Your task to perform on an android device: Check the weather Image 0: 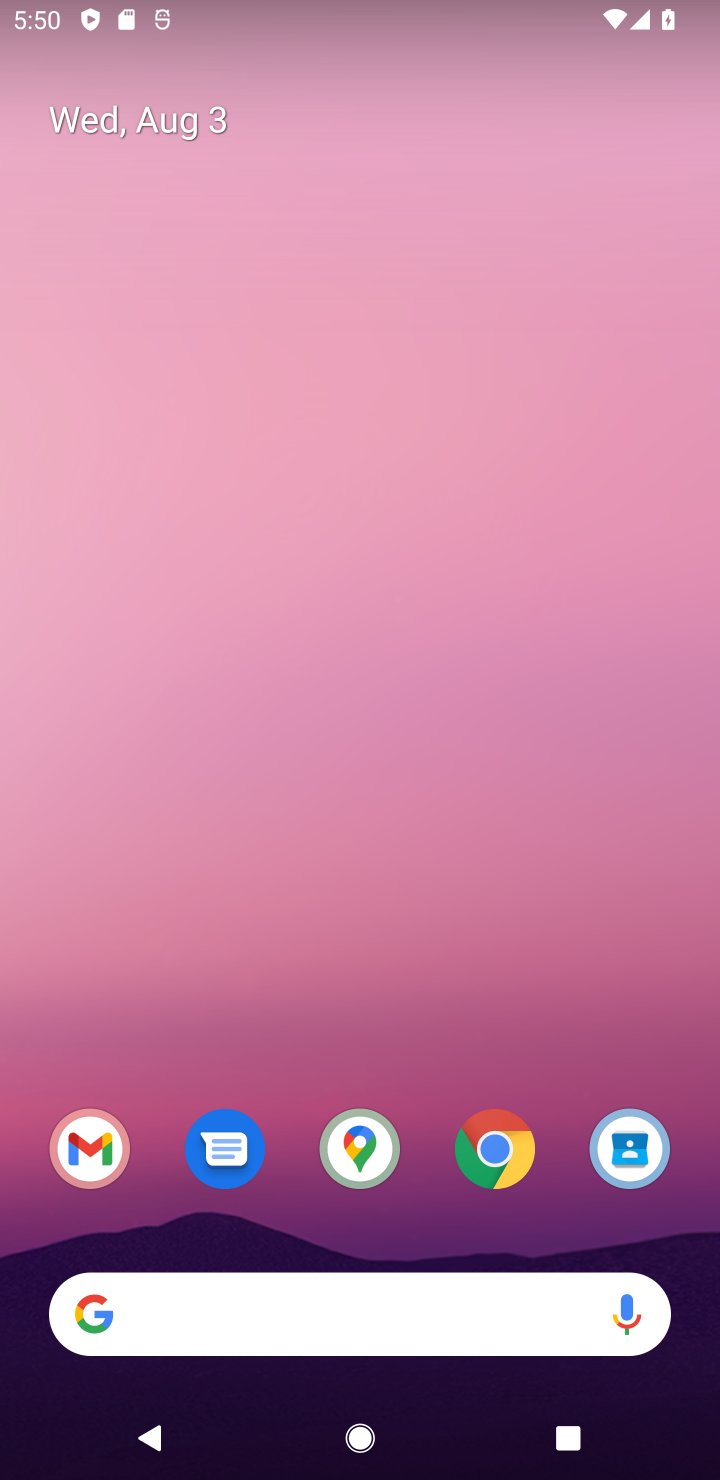
Step 0: drag from (353, 1311) to (318, 417)
Your task to perform on an android device: Check the weather Image 1: 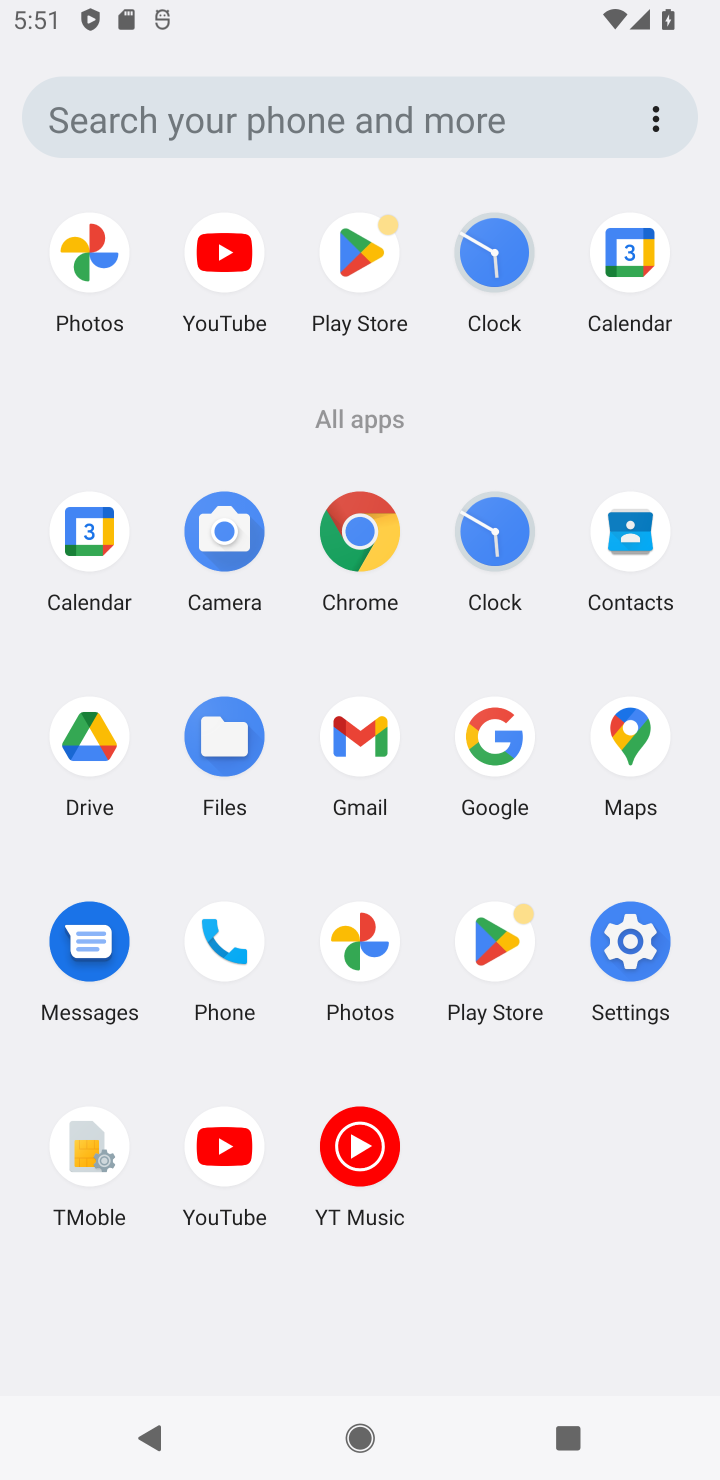
Step 1: click (358, 591)
Your task to perform on an android device: Check the weather Image 2: 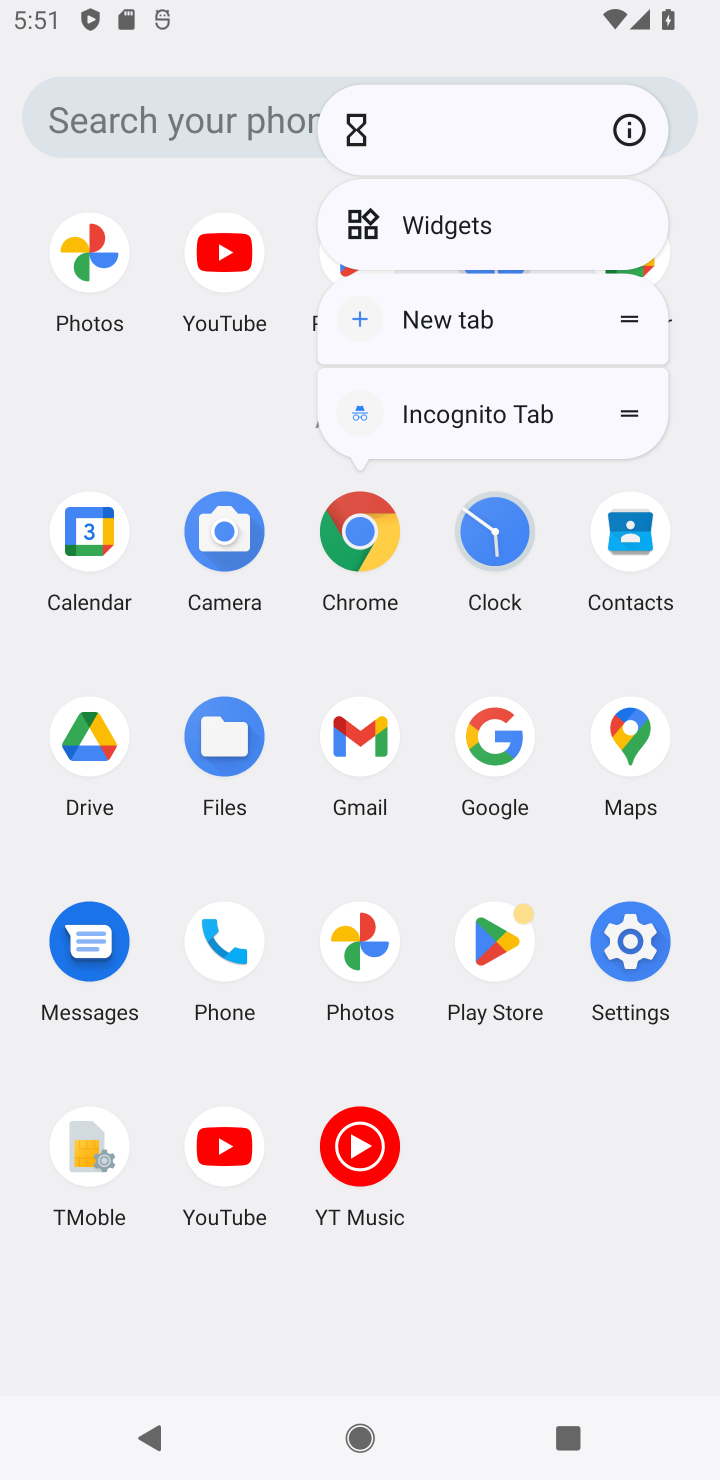
Step 2: click (370, 557)
Your task to perform on an android device: Check the weather Image 3: 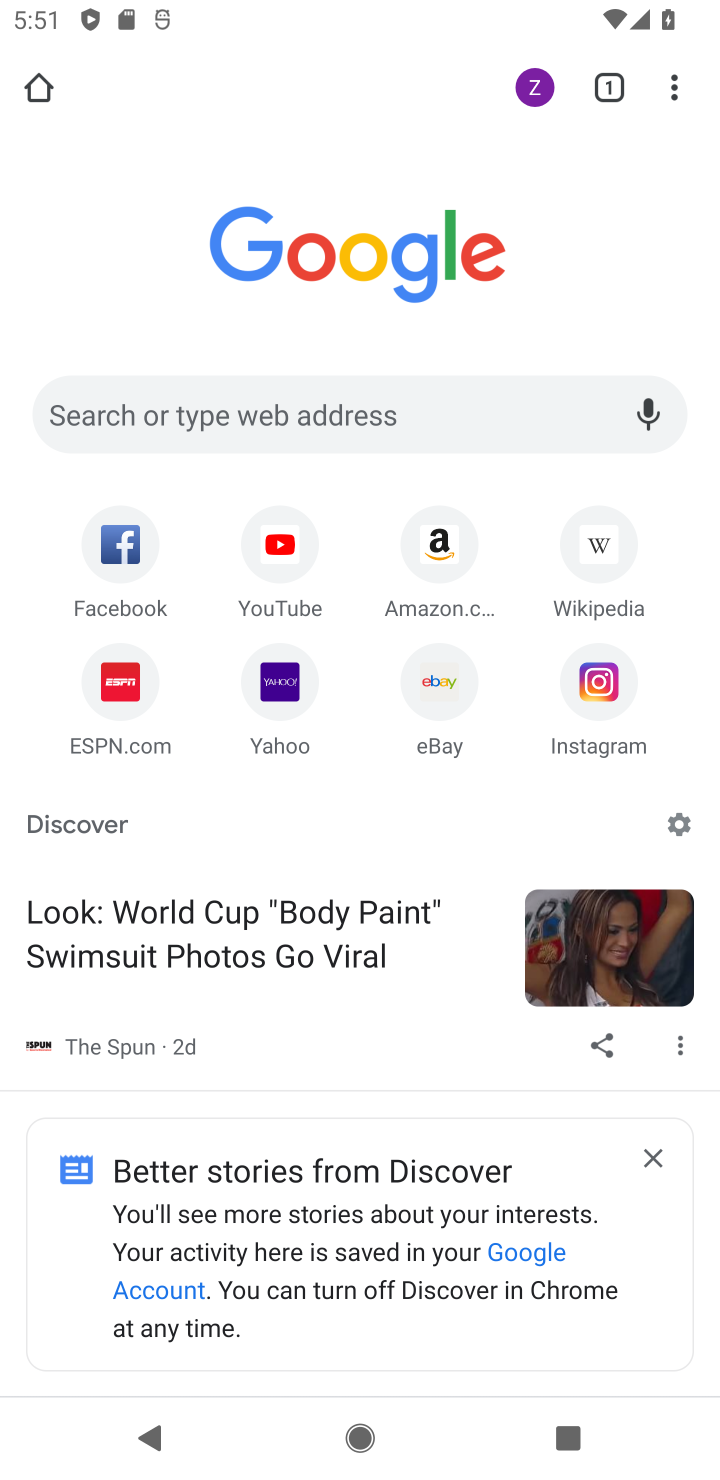
Step 3: click (337, 400)
Your task to perform on an android device: Check the weather Image 4: 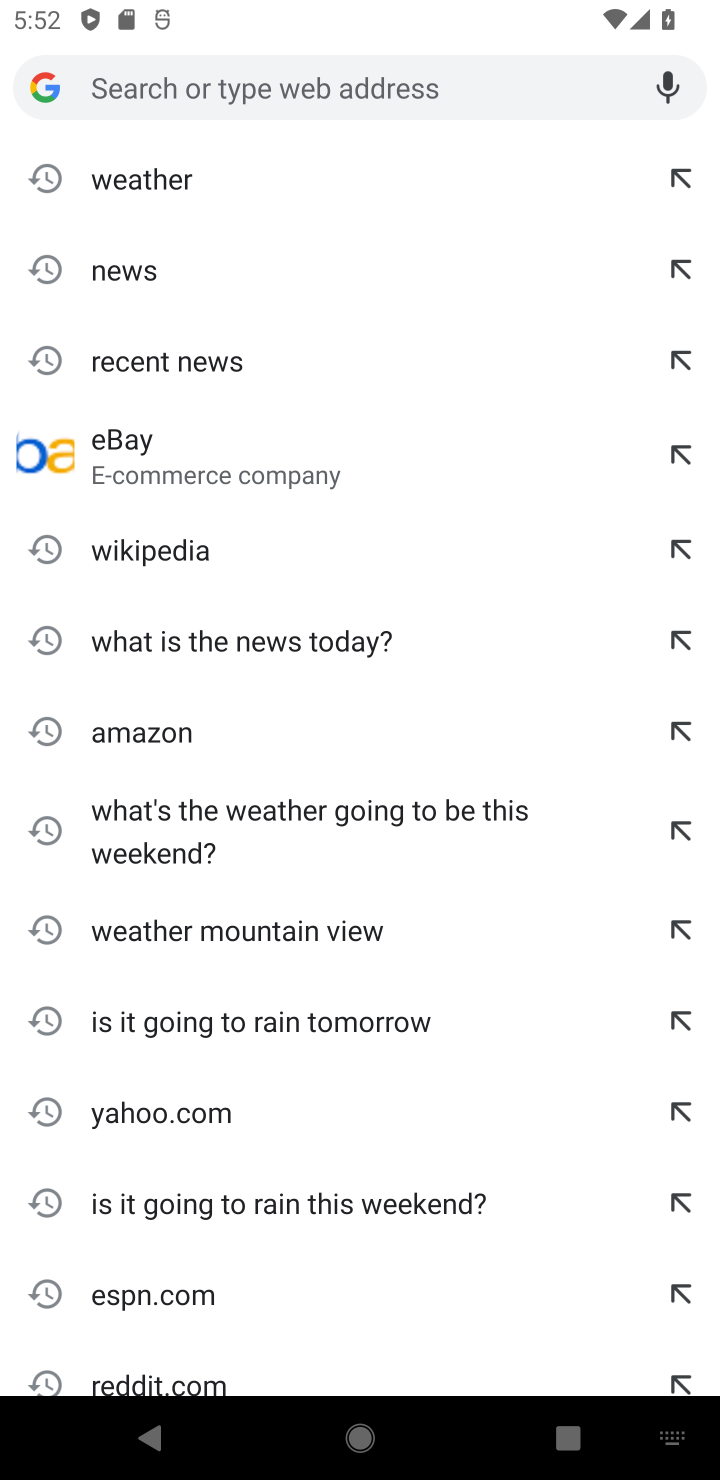
Step 4: click (114, 175)
Your task to perform on an android device: Check the weather Image 5: 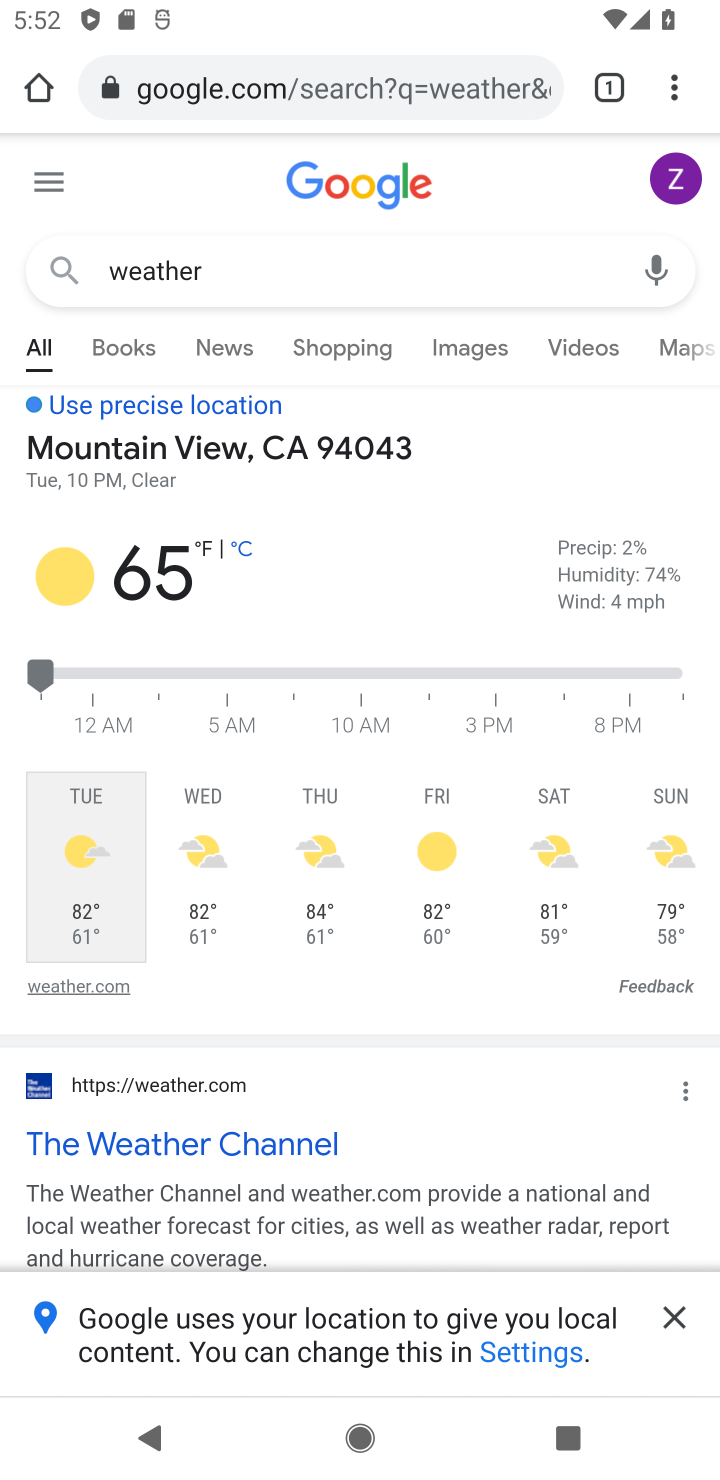
Step 5: task complete